Your task to perform on an android device: toggle priority inbox in the gmail app Image 0: 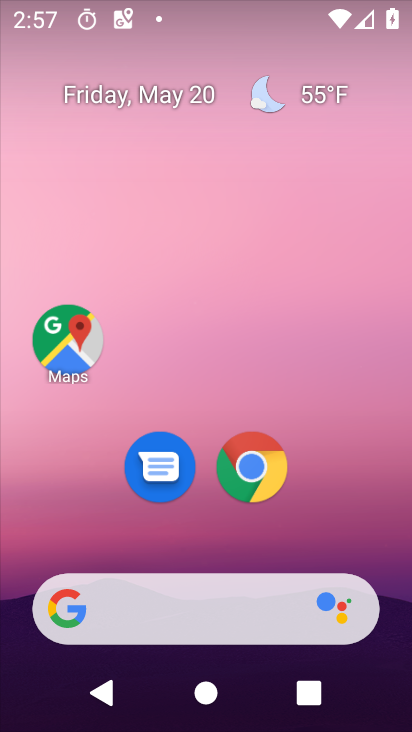
Step 0: drag from (216, 534) to (109, 17)
Your task to perform on an android device: toggle priority inbox in the gmail app Image 1: 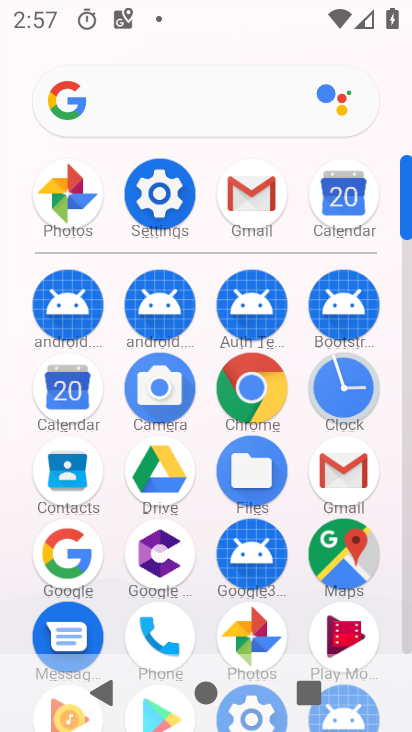
Step 1: click (331, 484)
Your task to perform on an android device: toggle priority inbox in the gmail app Image 2: 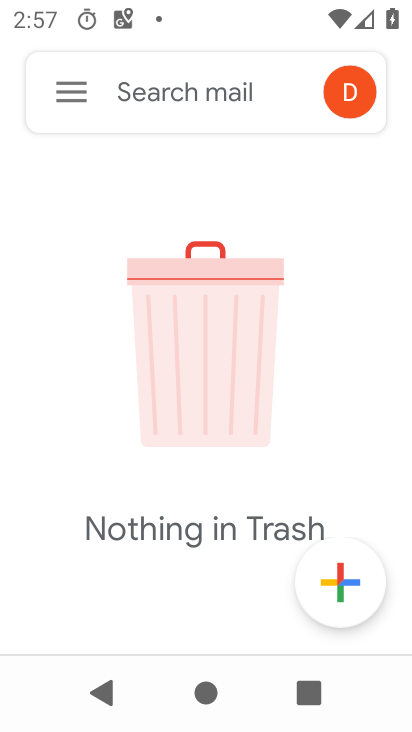
Step 2: click (69, 94)
Your task to perform on an android device: toggle priority inbox in the gmail app Image 3: 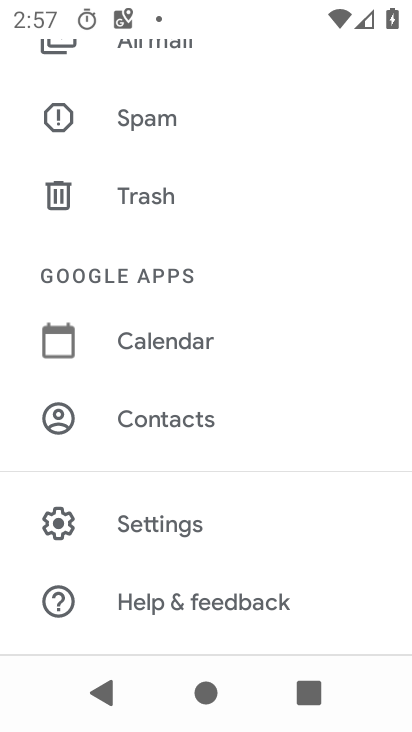
Step 3: click (143, 532)
Your task to perform on an android device: toggle priority inbox in the gmail app Image 4: 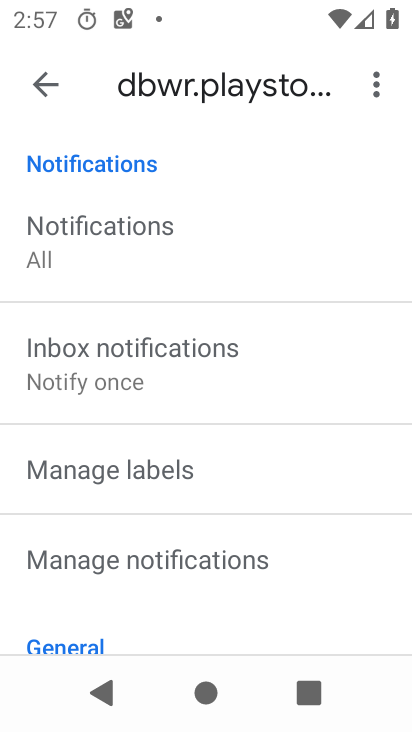
Step 4: drag from (117, 225) to (133, 512)
Your task to perform on an android device: toggle priority inbox in the gmail app Image 5: 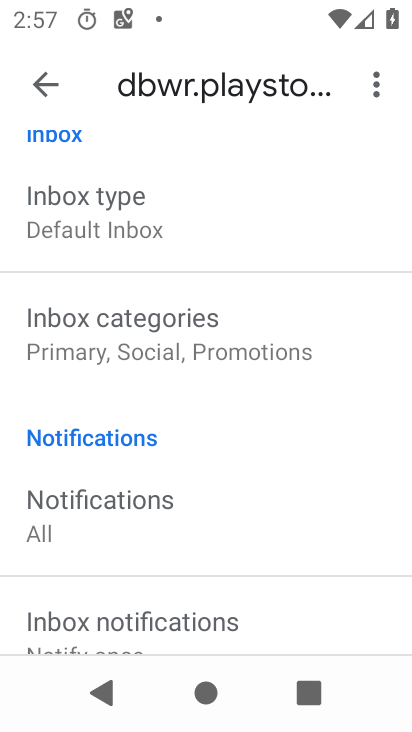
Step 5: click (100, 227)
Your task to perform on an android device: toggle priority inbox in the gmail app Image 6: 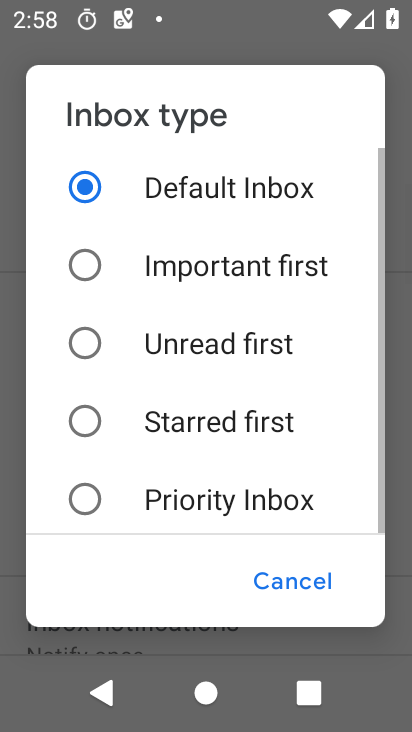
Step 6: click (225, 510)
Your task to perform on an android device: toggle priority inbox in the gmail app Image 7: 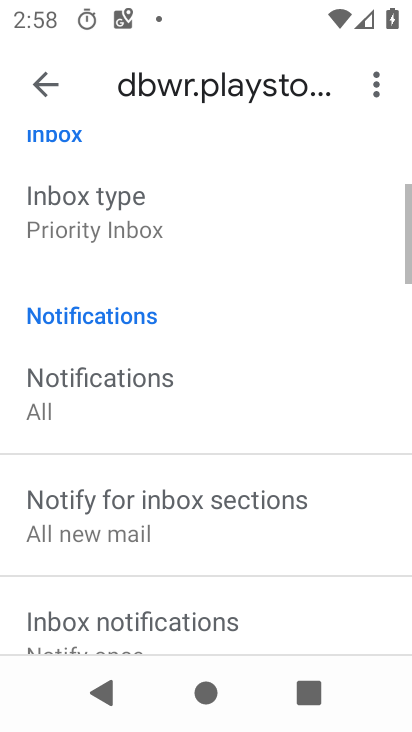
Step 7: task complete